Your task to perform on an android device: Open the Play Movies app and select the watchlist tab. Image 0: 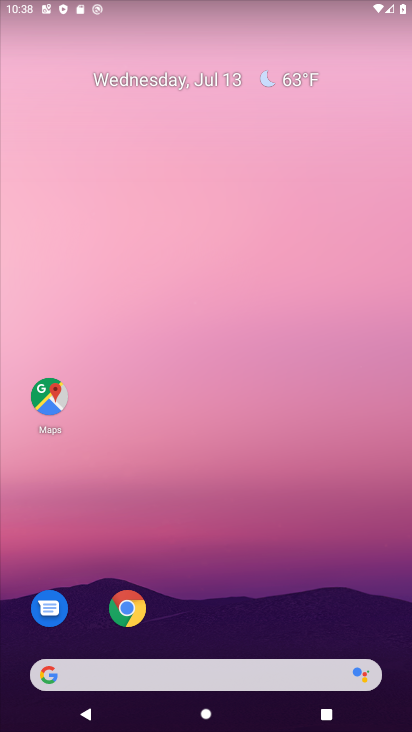
Step 0: drag from (316, 594) to (407, 46)
Your task to perform on an android device: Open the Play Movies app and select the watchlist tab. Image 1: 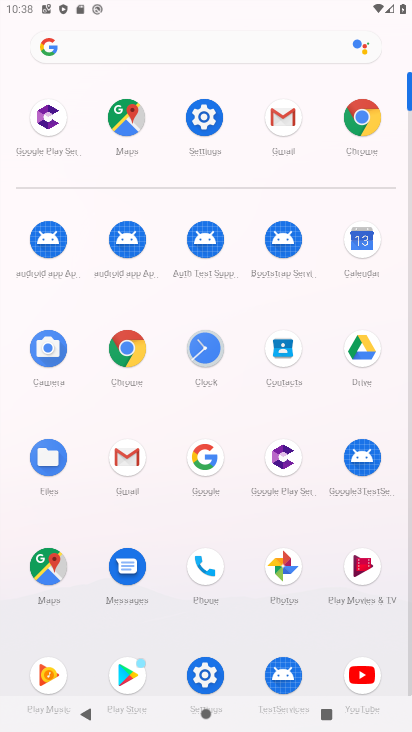
Step 1: click (363, 549)
Your task to perform on an android device: Open the Play Movies app and select the watchlist tab. Image 2: 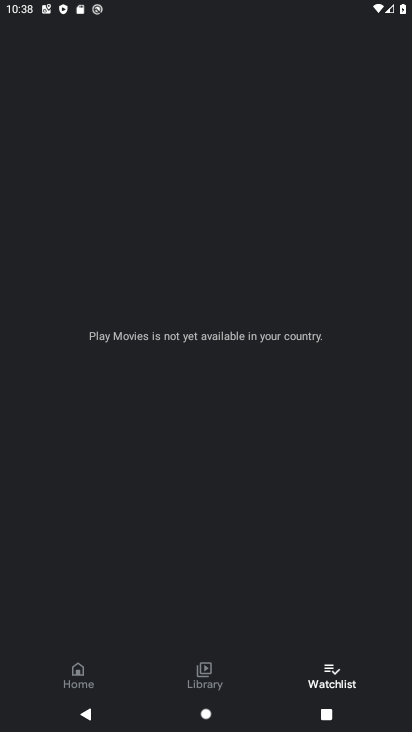
Step 2: click (337, 675)
Your task to perform on an android device: Open the Play Movies app and select the watchlist tab. Image 3: 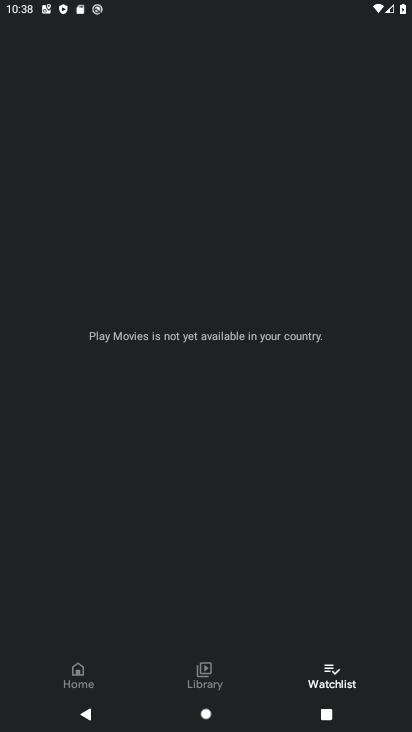
Step 3: task complete